Your task to perform on an android device: What's the weather going to be tomorrow? Image 0: 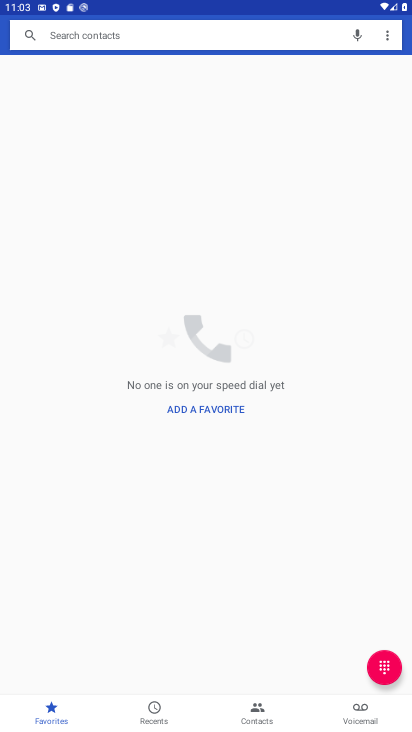
Step 0: press home button
Your task to perform on an android device: What's the weather going to be tomorrow? Image 1: 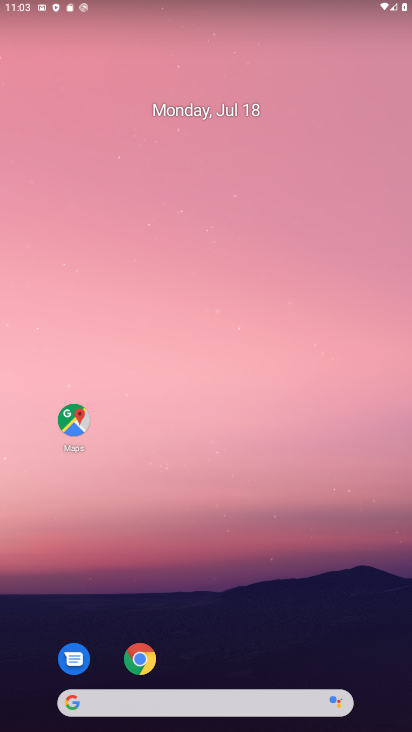
Step 1: click (210, 694)
Your task to perform on an android device: What's the weather going to be tomorrow? Image 2: 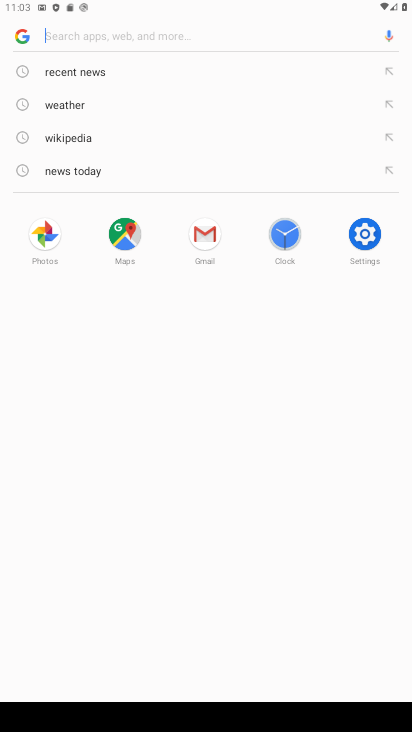
Step 2: click (66, 97)
Your task to perform on an android device: What's the weather going to be tomorrow? Image 3: 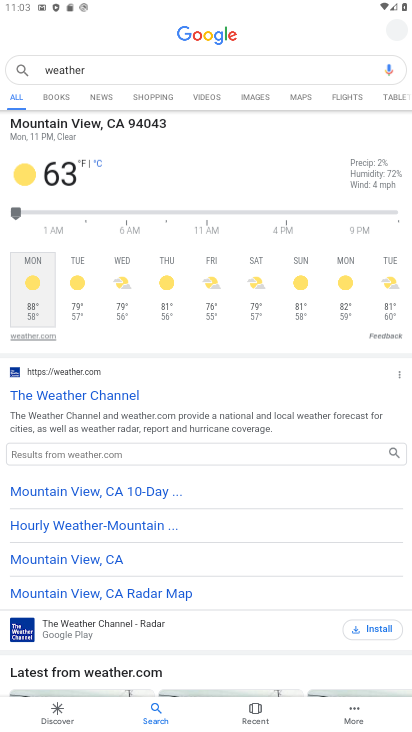
Step 3: click (71, 268)
Your task to perform on an android device: What's the weather going to be tomorrow? Image 4: 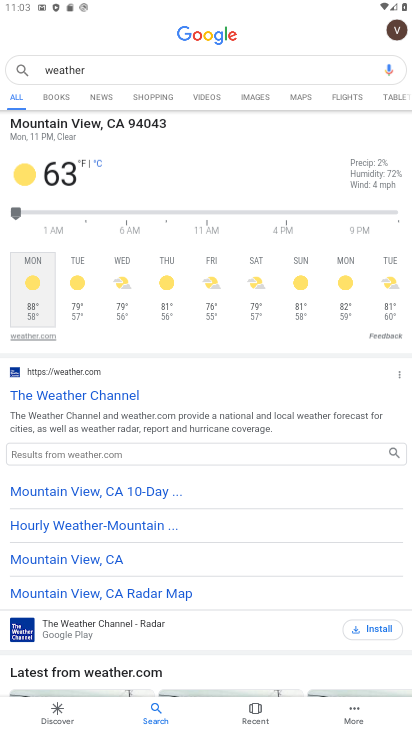
Step 4: click (75, 271)
Your task to perform on an android device: What's the weather going to be tomorrow? Image 5: 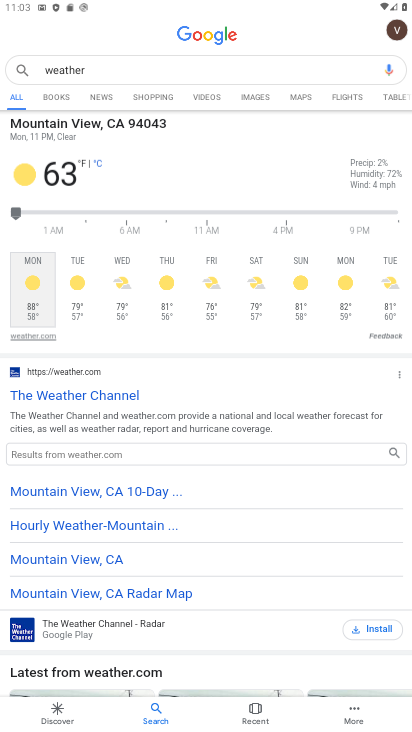
Step 5: click (75, 272)
Your task to perform on an android device: What's the weather going to be tomorrow? Image 6: 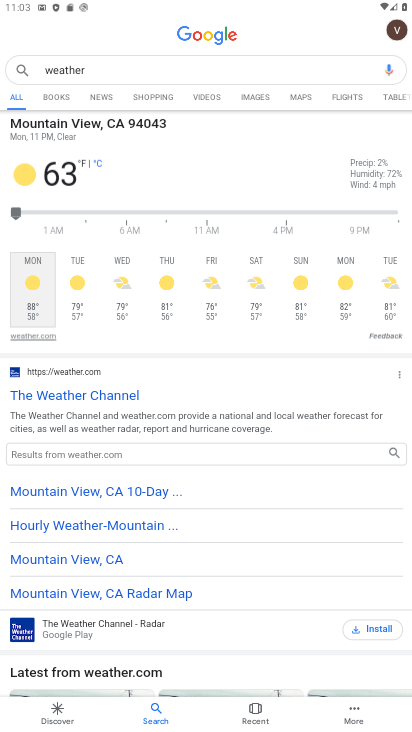
Step 6: click (75, 284)
Your task to perform on an android device: What's the weather going to be tomorrow? Image 7: 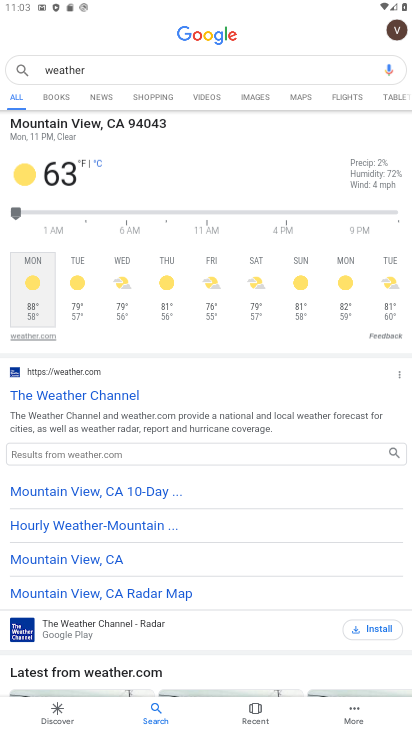
Step 7: drag from (109, 286) to (1, 288)
Your task to perform on an android device: What's the weather going to be tomorrow? Image 8: 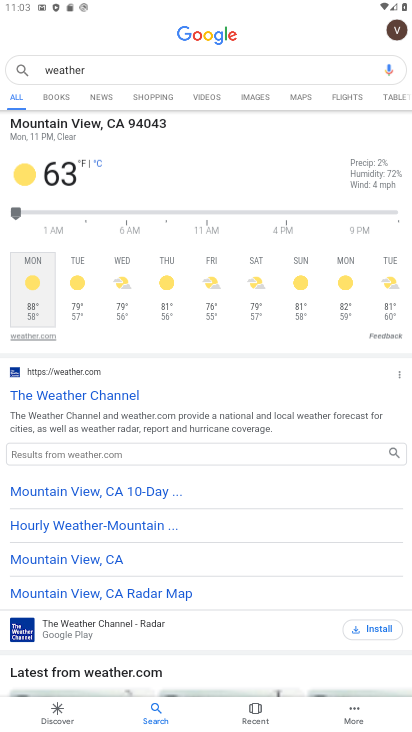
Step 8: drag from (385, 289) to (76, 298)
Your task to perform on an android device: What's the weather going to be tomorrow? Image 9: 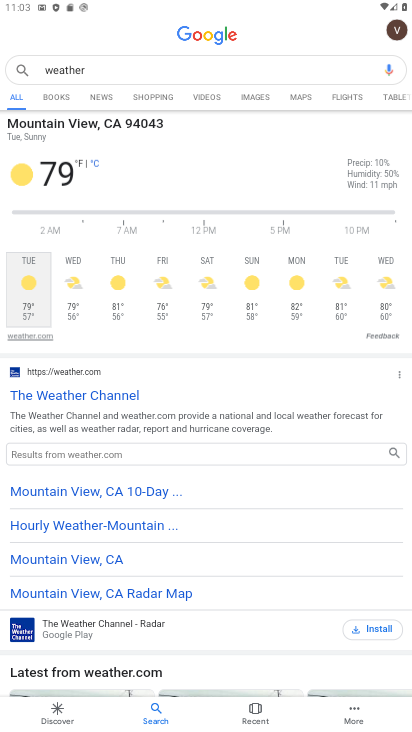
Step 9: click (72, 297)
Your task to perform on an android device: What's the weather going to be tomorrow? Image 10: 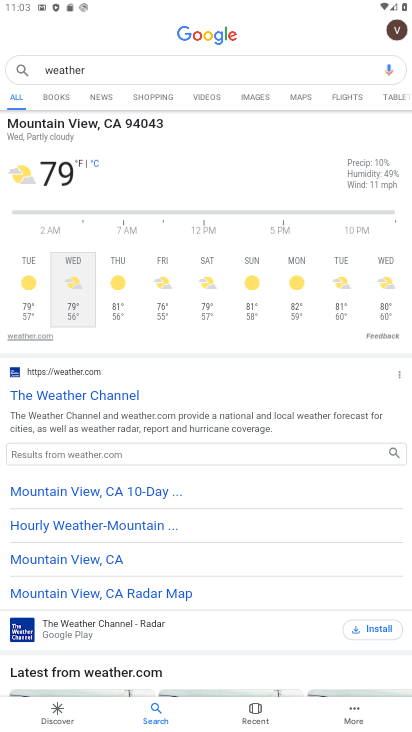
Step 10: task complete